Your task to perform on an android device: What's the weather today? Image 0: 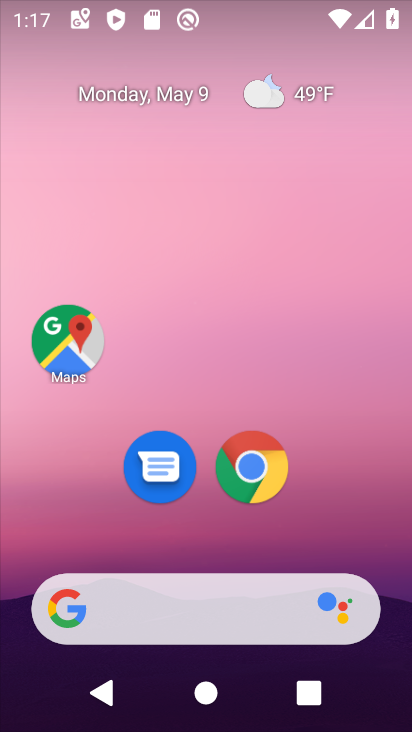
Step 0: press home button
Your task to perform on an android device: What's the weather today? Image 1: 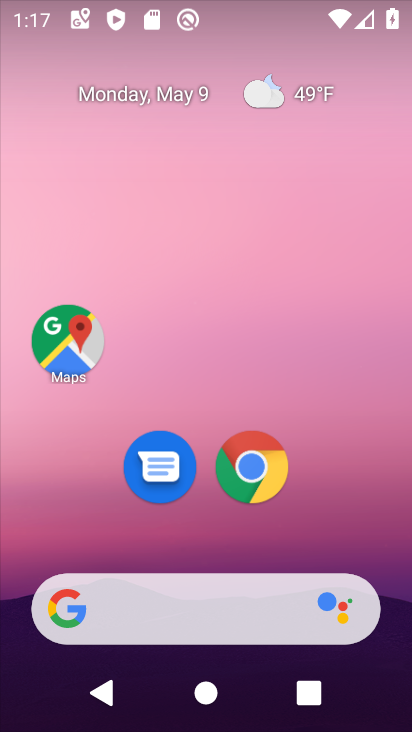
Step 1: drag from (364, 502) to (387, 127)
Your task to perform on an android device: What's the weather today? Image 2: 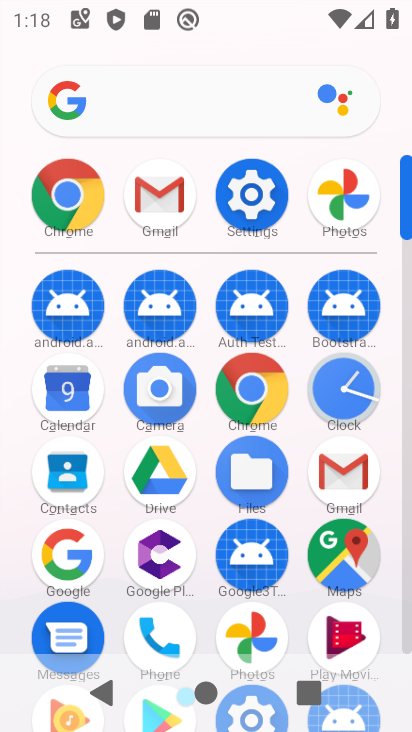
Step 2: click (51, 189)
Your task to perform on an android device: What's the weather today? Image 3: 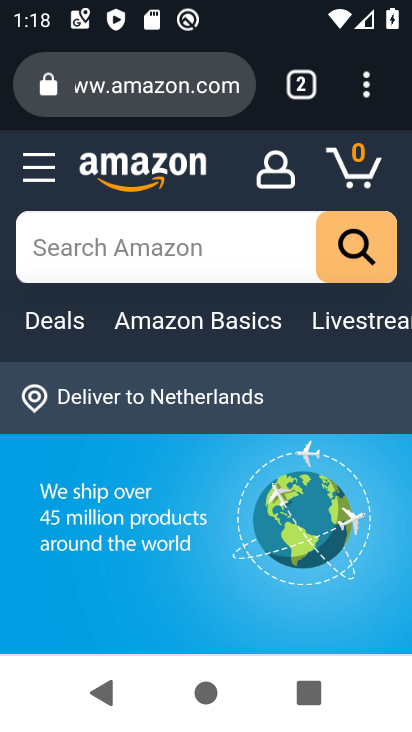
Step 3: click (133, 99)
Your task to perform on an android device: What's the weather today? Image 4: 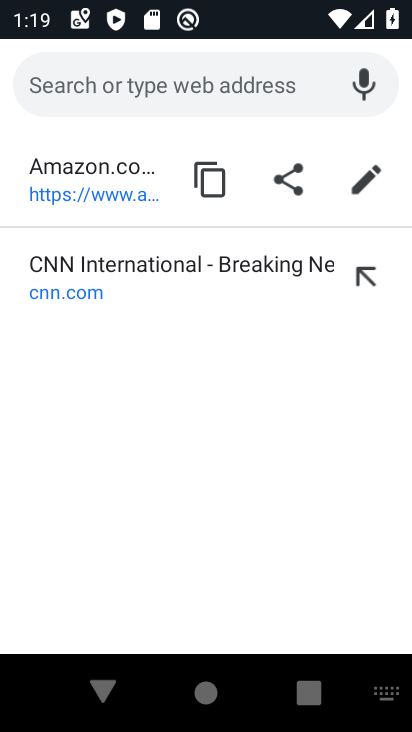
Step 4: click (58, 88)
Your task to perform on an android device: What's the weather today? Image 5: 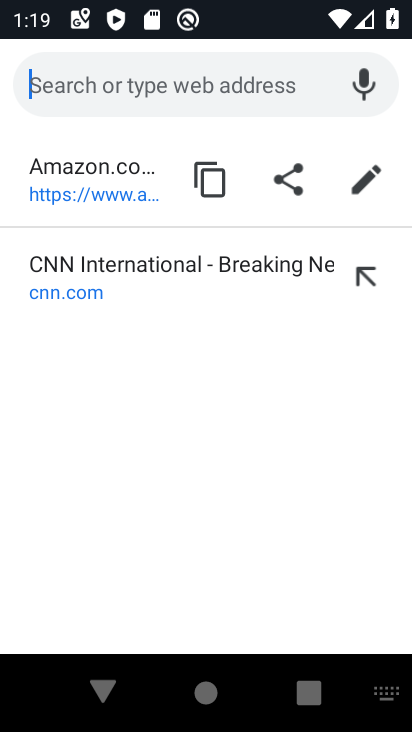
Step 5: click (150, 83)
Your task to perform on an android device: What's the weather today? Image 6: 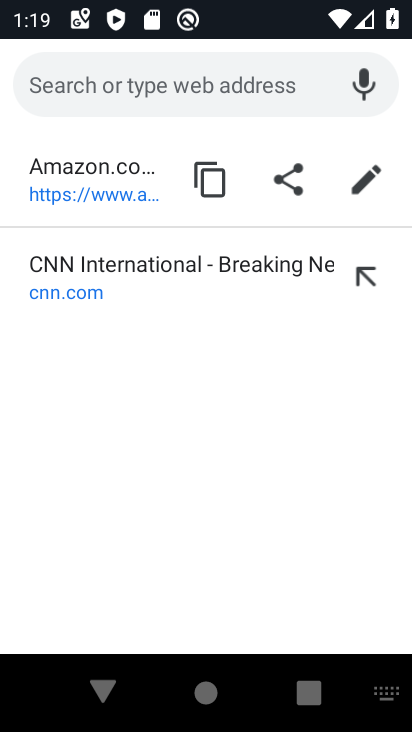
Step 6: click (194, 81)
Your task to perform on an android device: What's the weather today? Image 7: 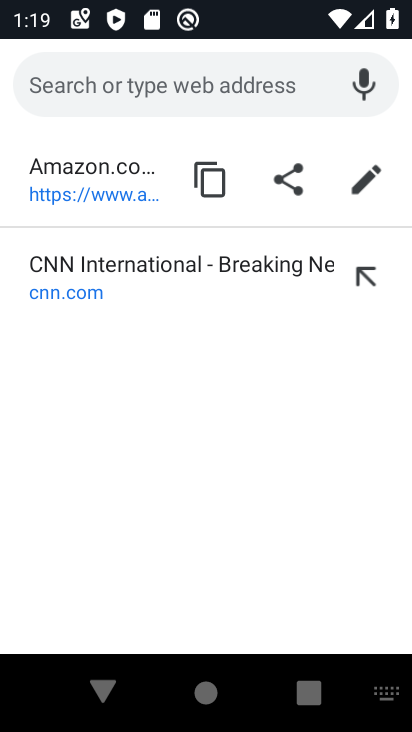
Step 7: click (210, 96)
Your task to perform on an android device: What's the weather today? Image 8: 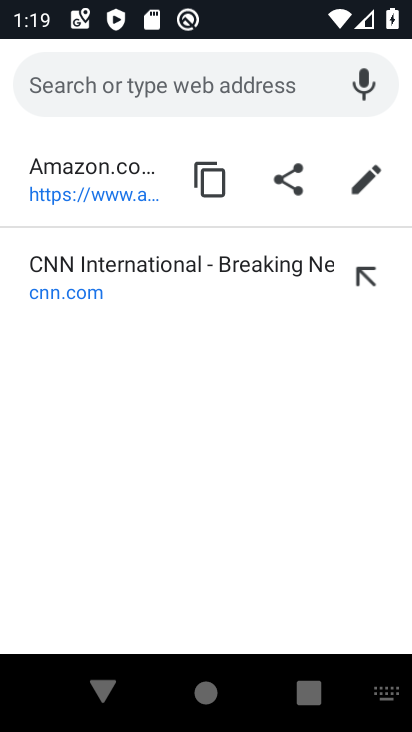
Step 8: type "what's the weather today"
Your task to perform on an android device: What's the weather today? Image 9: 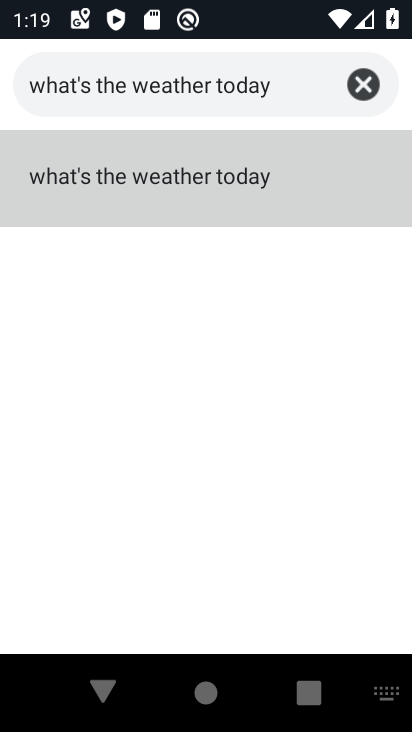
Step 9: click (232, 180)
Your task to perform on an android device: What's the weather today? Image 10: 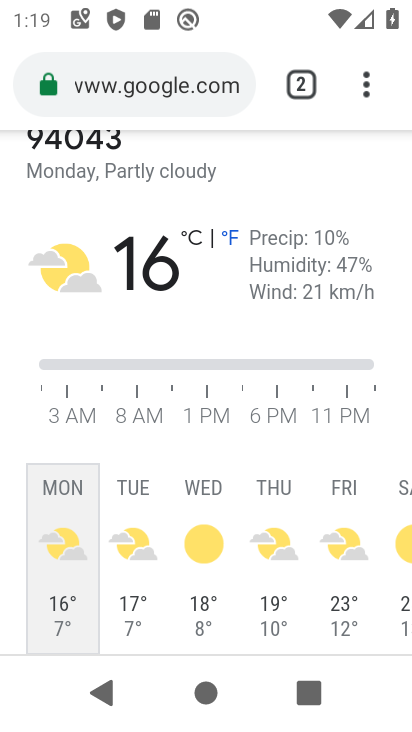
Step 10: task complete